Your task to perform on an android device: turn on showing notifications on the lock screen Image 0: 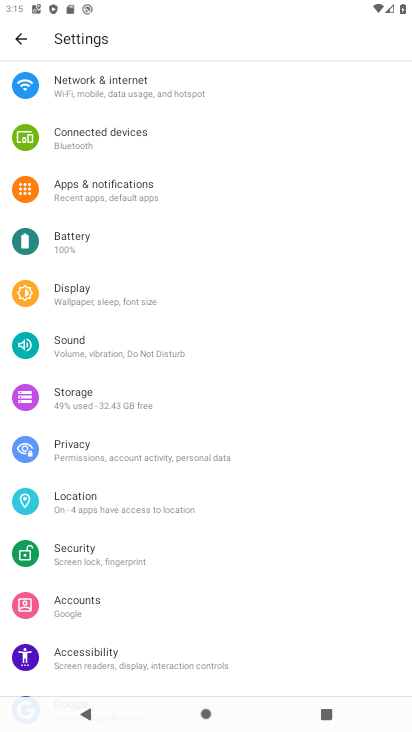
Step 0: click (173, 194)
Your task to perform on an android device: turn on showing notifications on the lock screen Image 1: 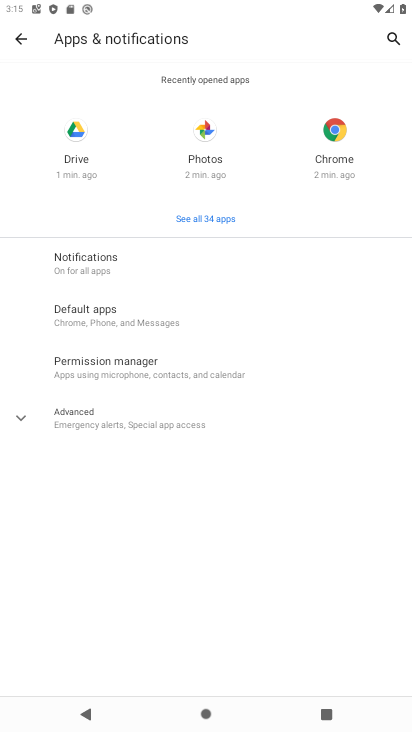
Step 1: click (140, 244)
Your task to perform on an android device: turn on showing notifications on the lock screen Image 2: 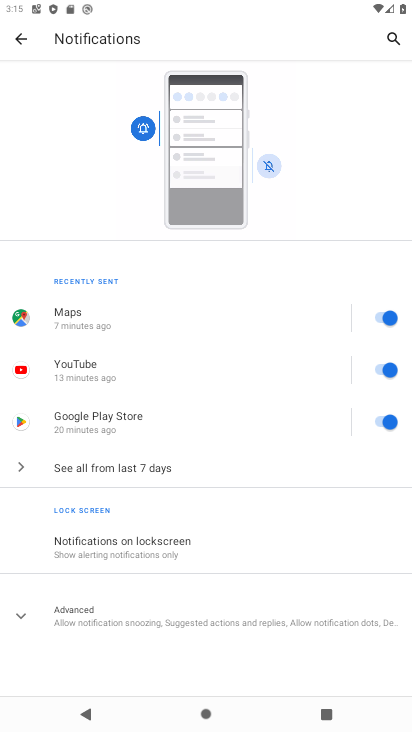
Step 2: click (172, 547)
Your task to perform on an android device: turn on showing notifications on the lock screen Image 3: 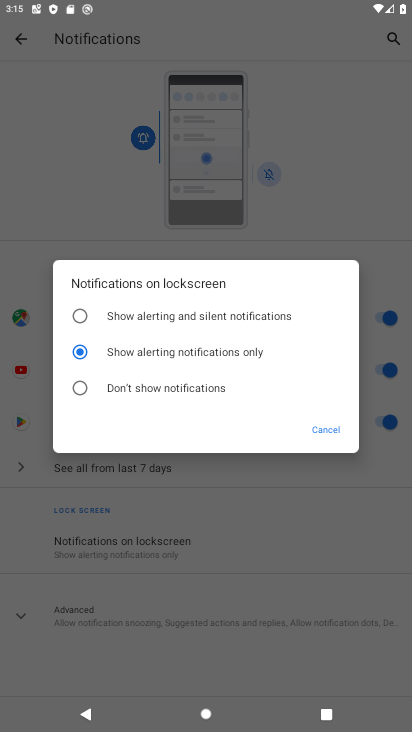
Step 3: click (254, 309)
Your task to perform on an android device: turn on showing notifications on the lock screen Image 4: 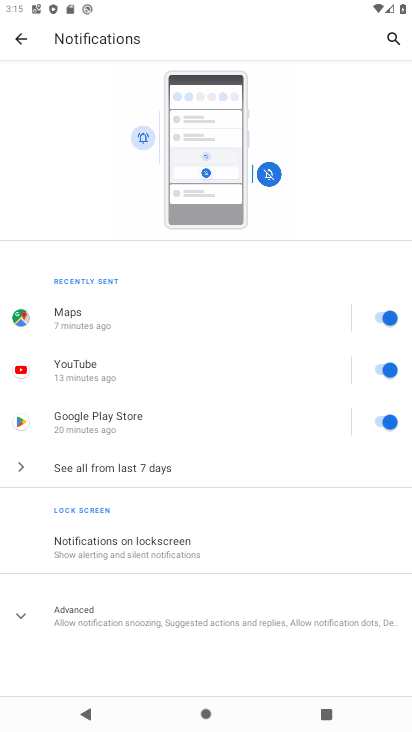
Step 4: task complete